Your task to perform on an android device: Open Chrome and go to the settings page Image 0: 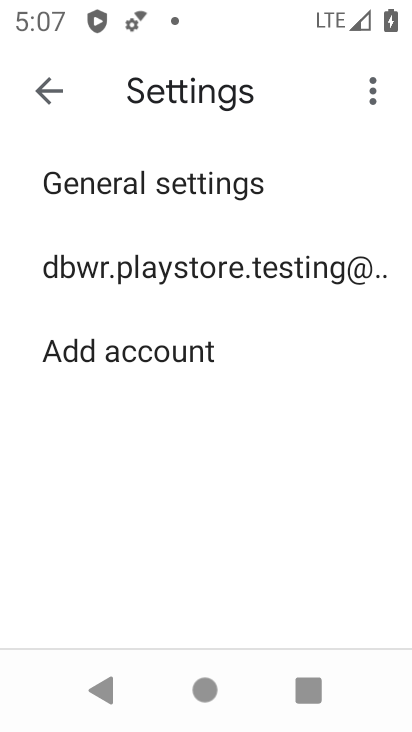
Step 0: press back button
Your task to perform on an android device: Open Chrome and go to the settings page Image 1: 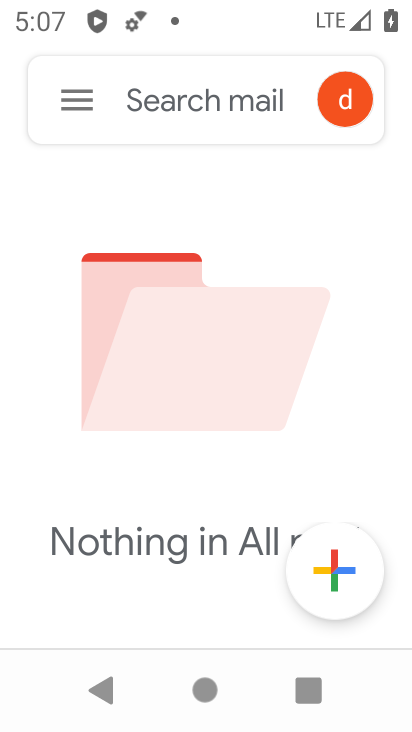
Step 1: press back button
Your task to perform on an android device: Open Chrome and go to the settings page Image 2: 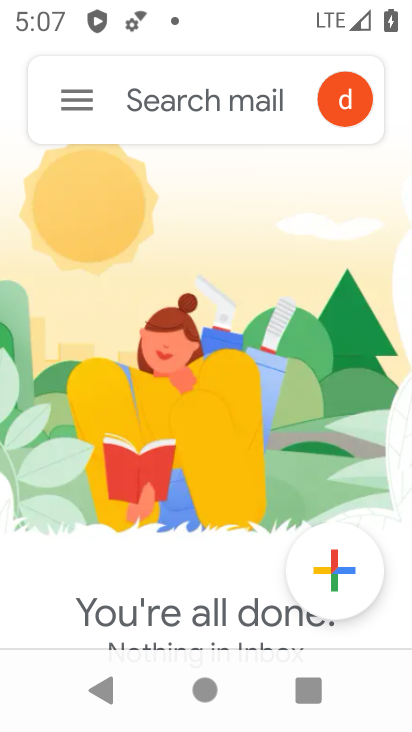
Step 2: press home button
Your task to perform on an android device: Open Chrome and go to the settings page Image 3: 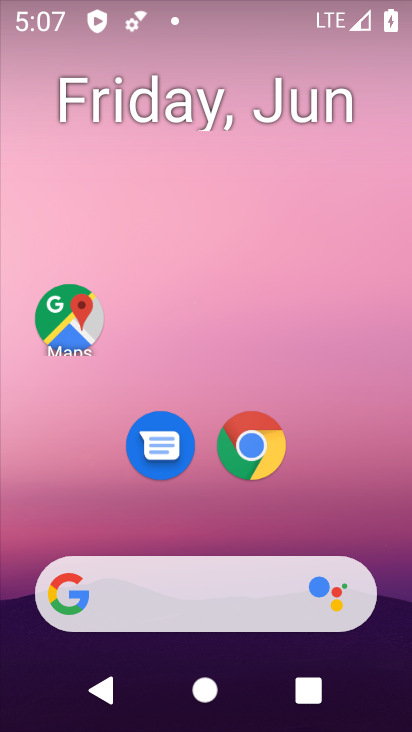
Step 3: click (250, 443)
Your task to perform on an android device: Open Chrome and go to the settings page Image 4: 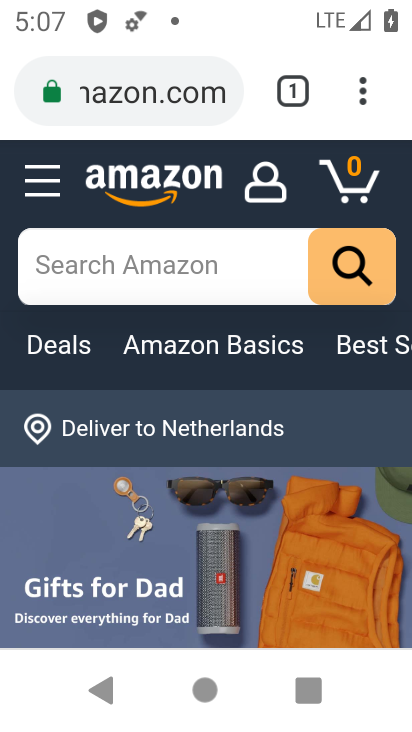
Step 4: task complete